Your task to perform on an android device: What's the news in India? Image 0: 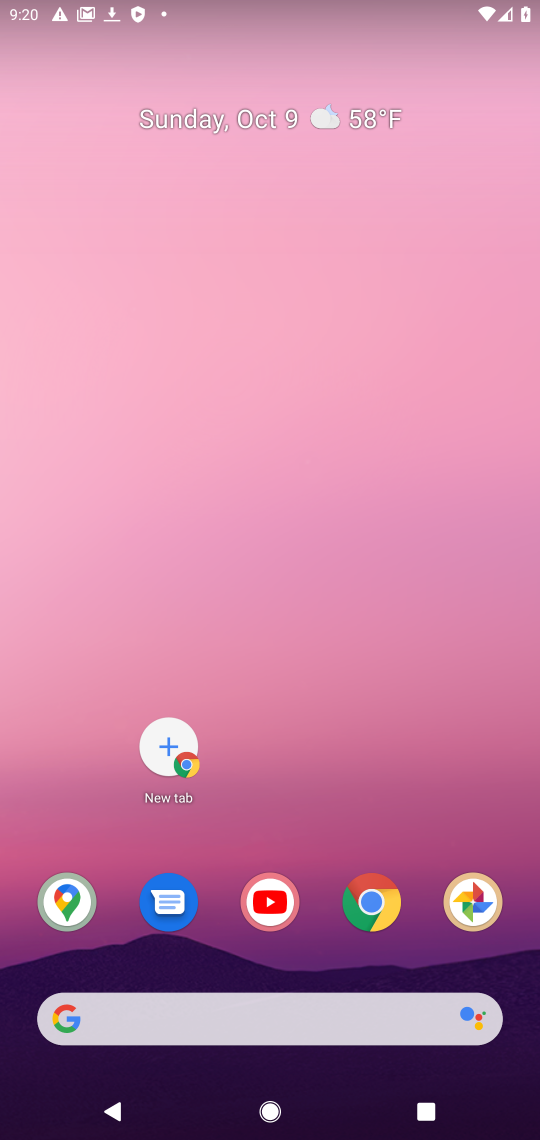
Step 0: click (378, 915)
Your task to perform on an android device: What's the news in India? Image 1: 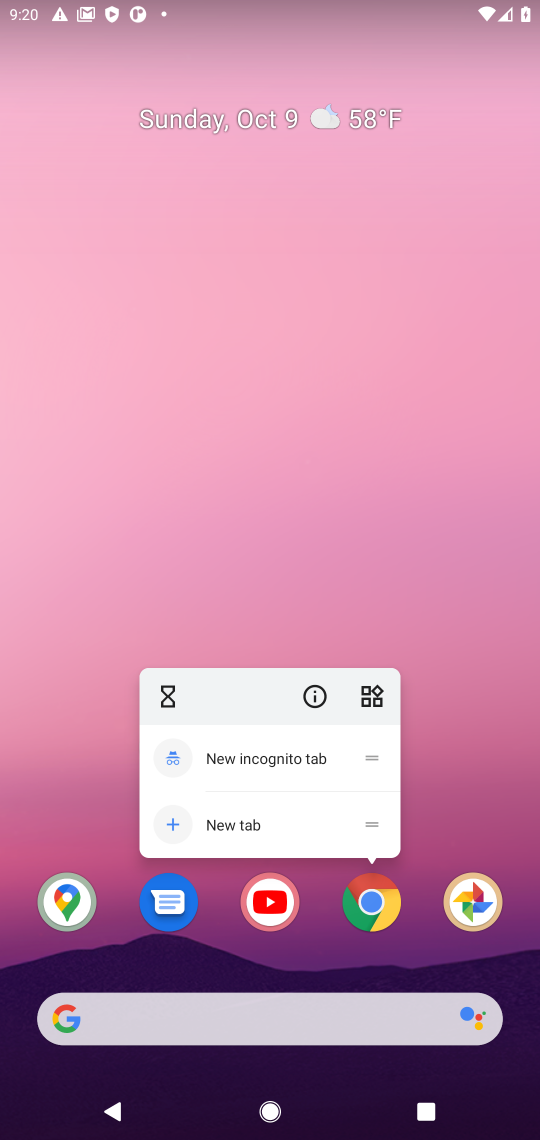
Step 1: click (376, 915)
Your task to perform on an android device: What's the news in India? Image 2: 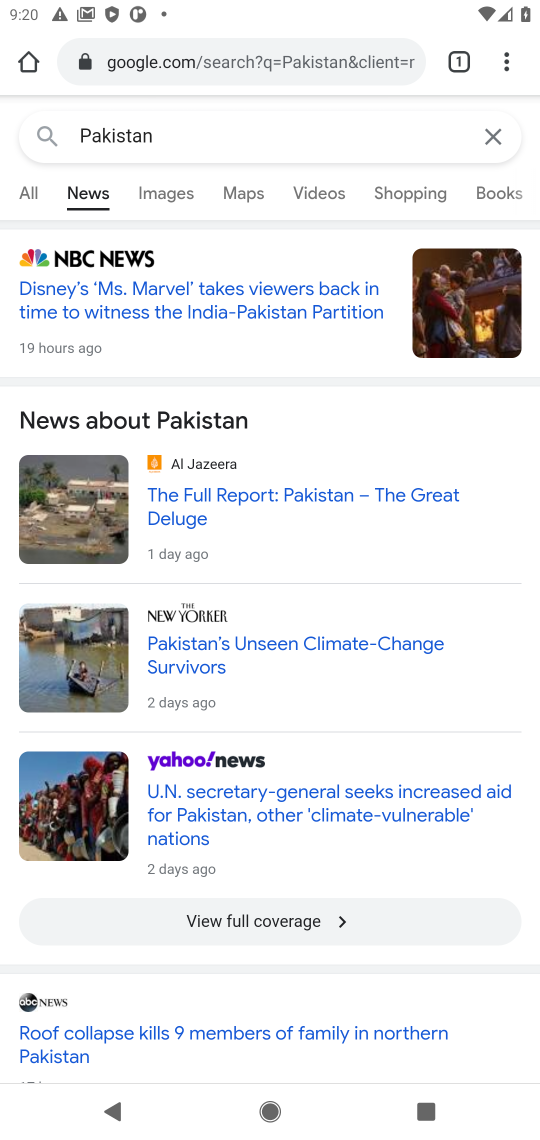
Step 2: click (232, 67)
Your task to perform on an android device: What's the news in India? Image 3: 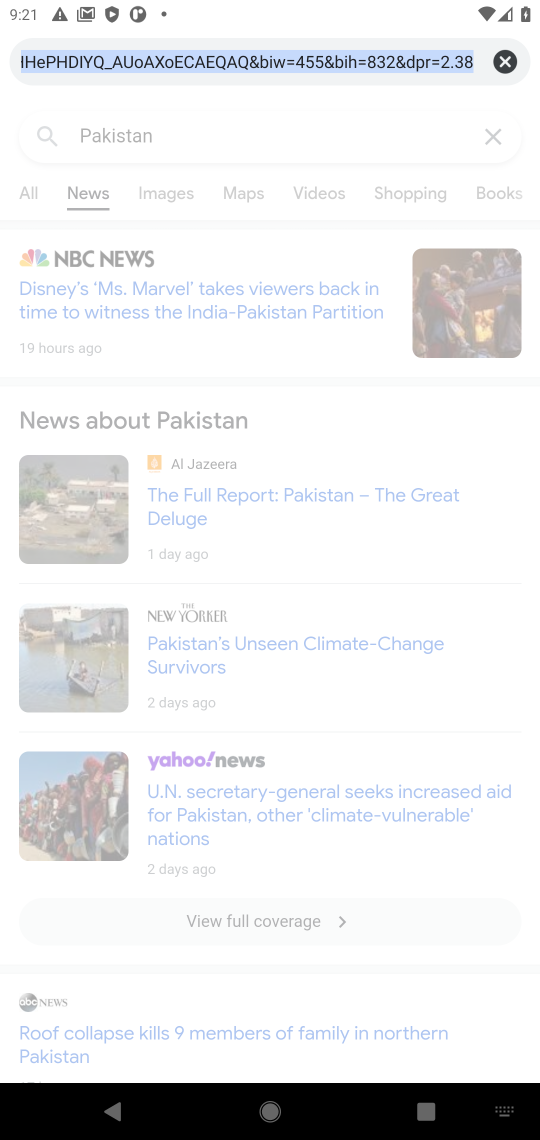
Step 3: type "India"
Your task to perform on an android device: What's the news in India? Image 4: 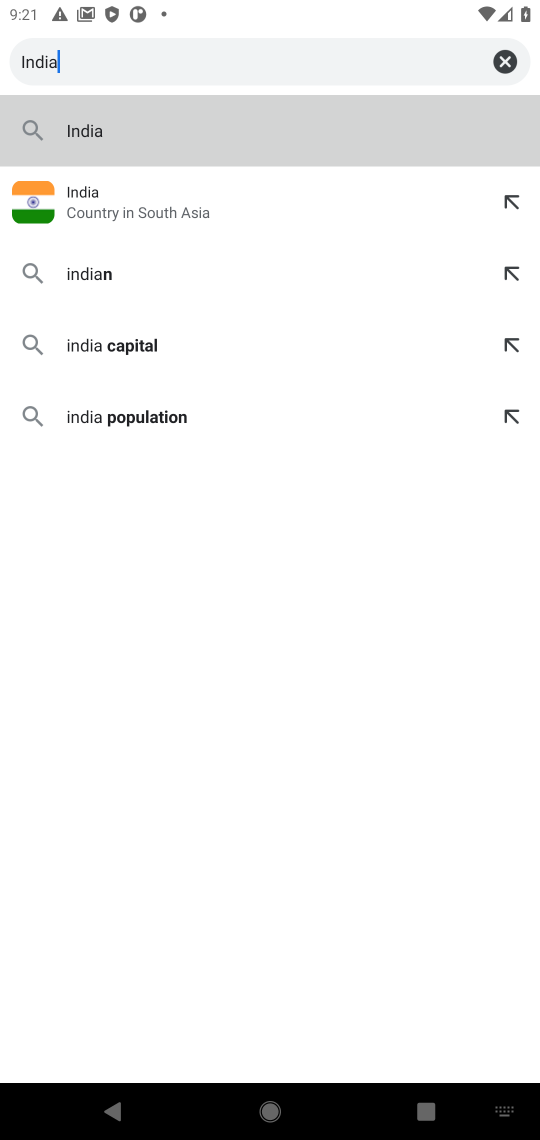
Step 4: click (165, 203)
Your task to perform on an android device: What's the news in India? Image 5: 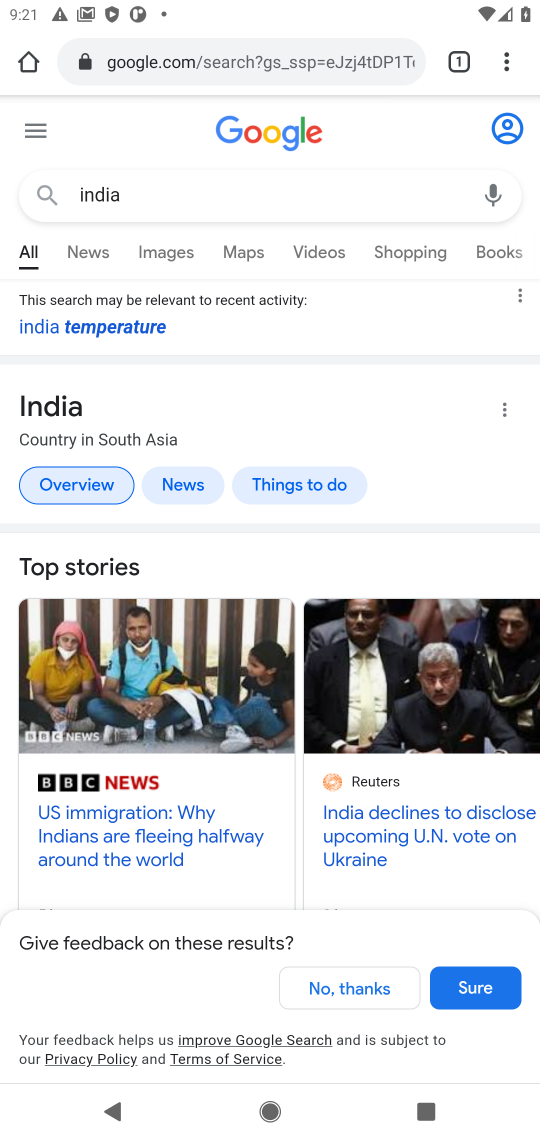
Step 5: click (187, 483)
Your task to perform on an android device: What's the news in India? Image 6: 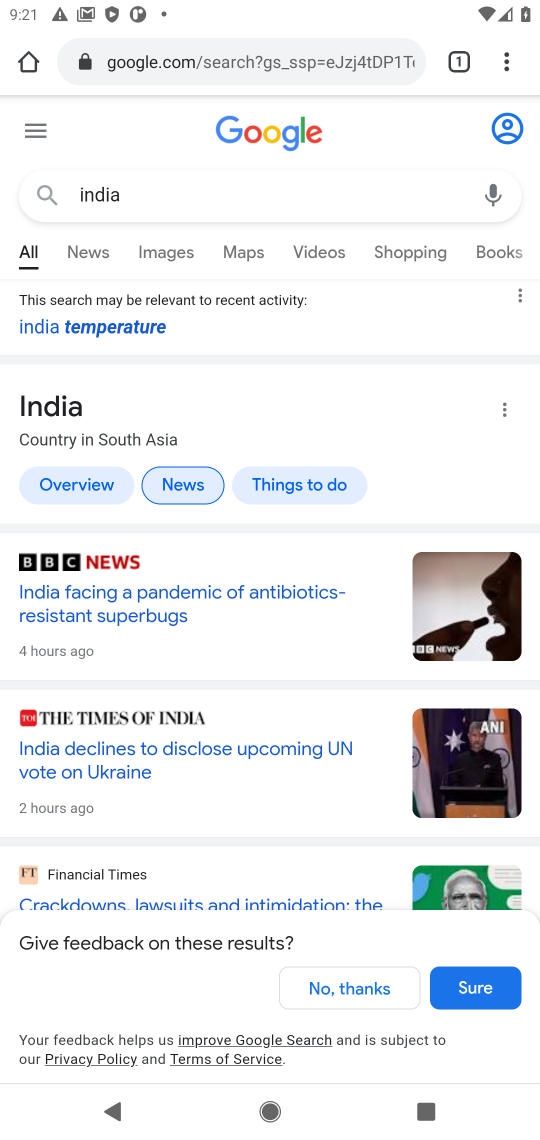
Step 6: task complete